Your task to perform on an android device: Open ESPN.com Image 0: 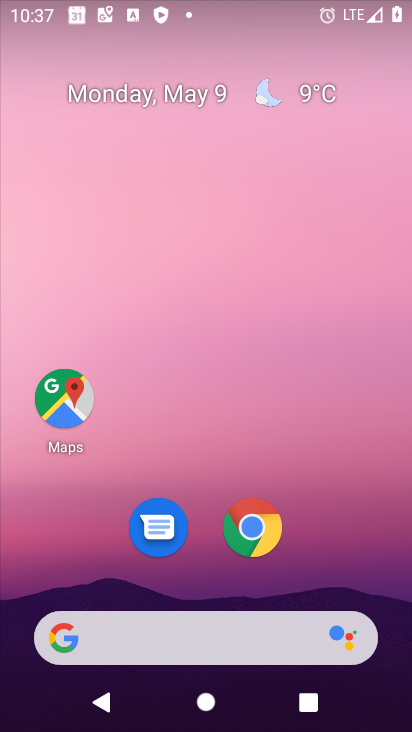
Step 0: click (249, 528)
Your task to perform on an android device: Open ESPN.com Image 1: 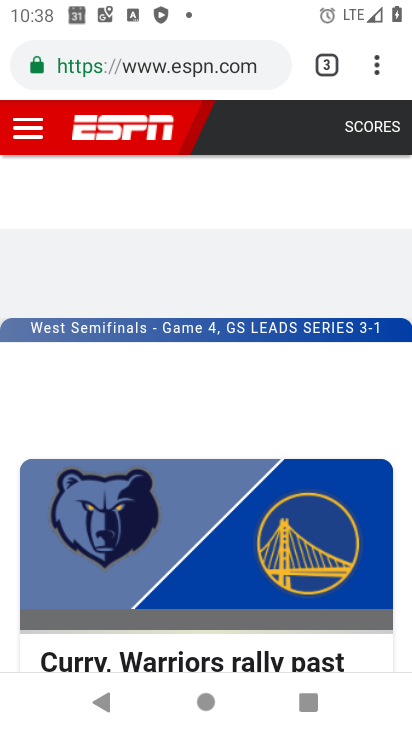
Step 1: task complete